Your task to perform on an android device: search for starred emails in the gmail app Image 0: 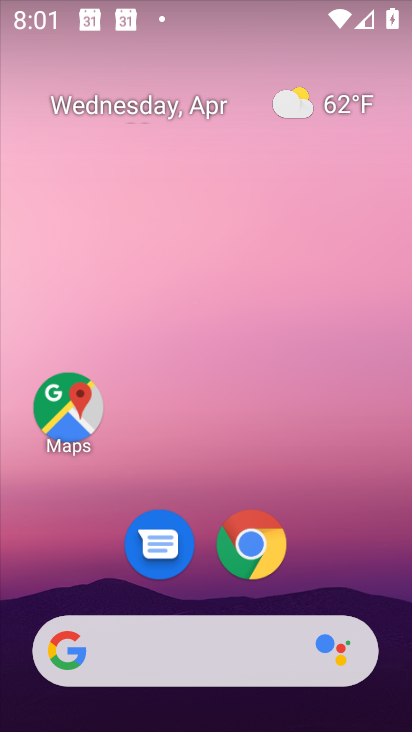
Step 0: drag from (342, 559) to (127, 112)
Your task to perform on an android device: search for starred emails in the gmail app Image 1: 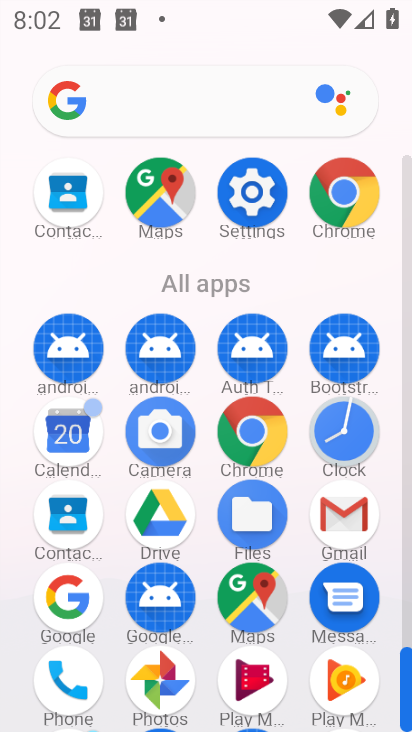
Step 1: click (342, 519)
Your task to perform on an android device: search for starred emails in the gmail app Image 2: 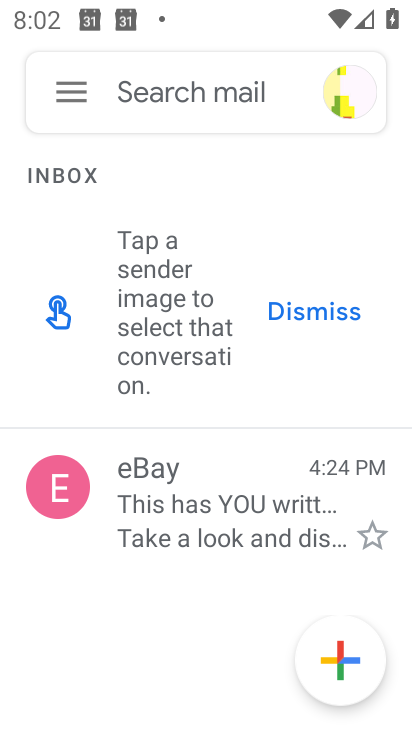
Step 2: click (69, 90)
Your task to perform on an android device: search for starred emails in the gmail app Image 3: 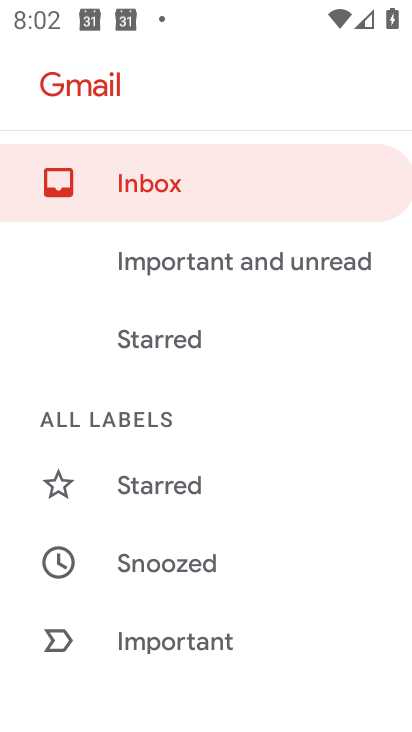
Step 3: click (156, 333)
Your task to perform on an android device: search for starred emails in the gmail app Image 4: 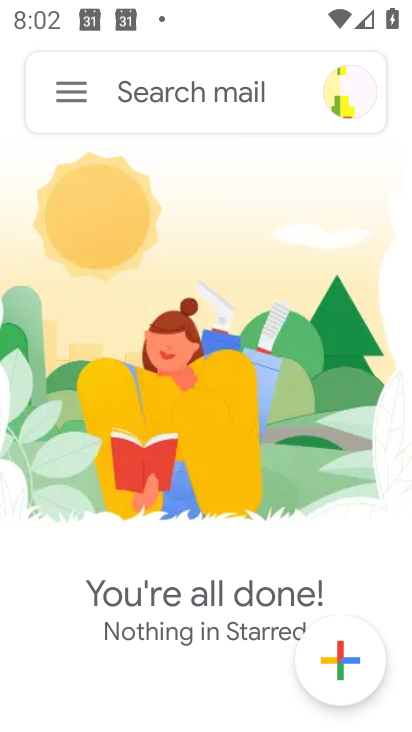
Step 4: task complete